Your task to perform on an android device: read, delete, or share a saved page in the chrome app Image 0: 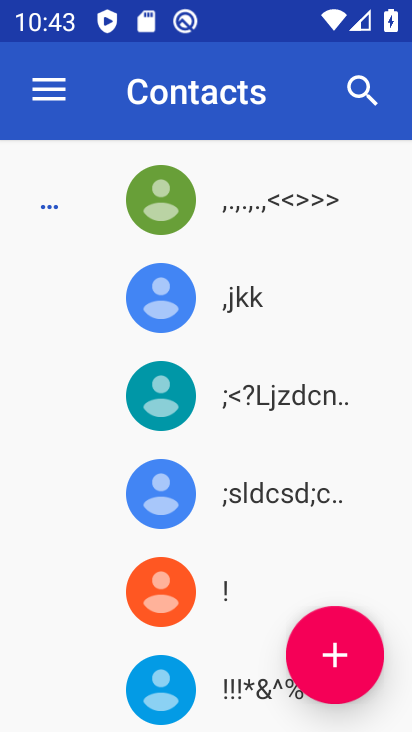
Step 0: press home button
Your task to perform on an android device: read, delete, or share a saved page in the chrome app Image 1: 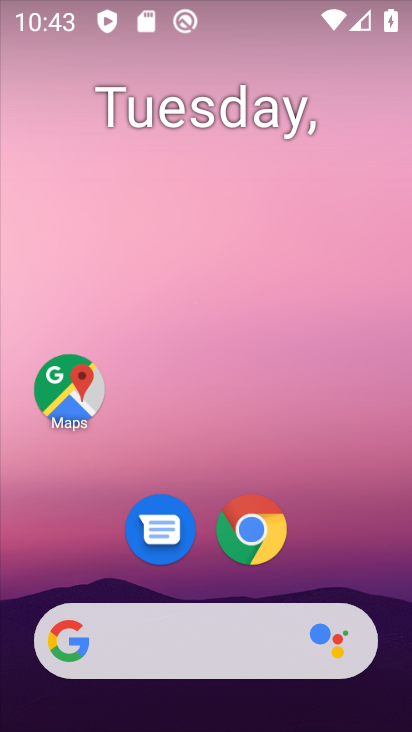
Step 1: click (255, 534)
Your task to perform on an android device: read, delete, or share a saved page in the chrome app Image 2: 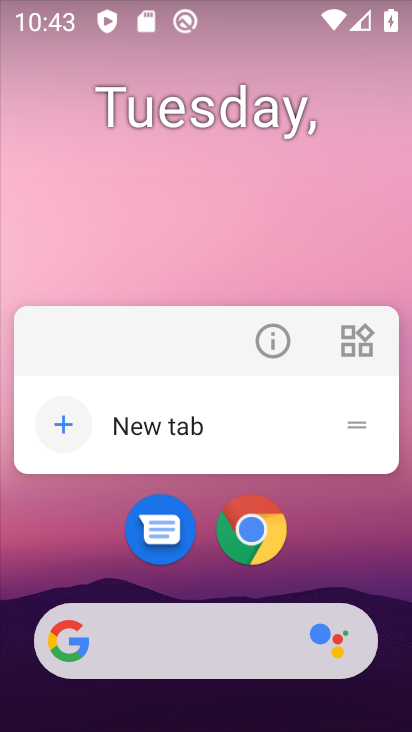
Step 2: click (253, 540)
Your task to perform on an android device: read, delete, or share a saved page in the chrome app Image 3: 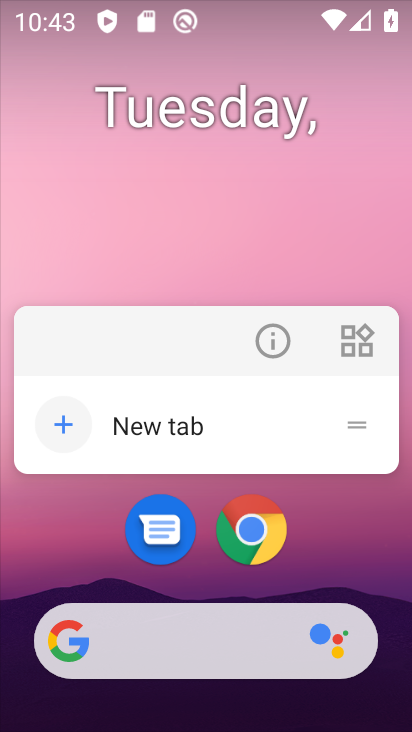
Step 3: click (255, 553)
Your task to perform on an android device: read, delete, or share a saved page in the chrome app Image 4: 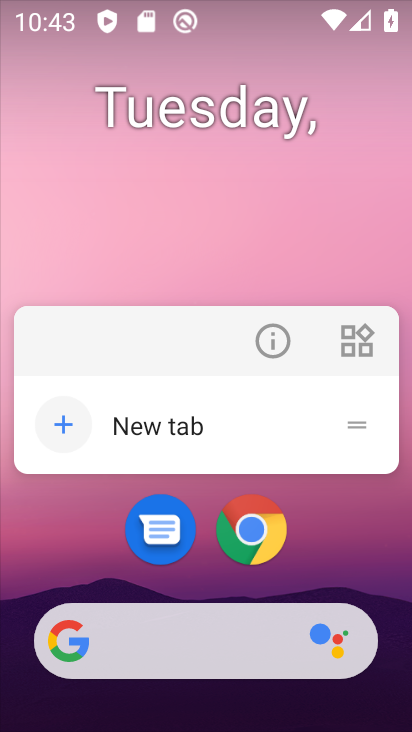
Step 4: click (256, 546)
Your task to perform on an android device: read, delete, or share a saved page in the chrome app Image 5: 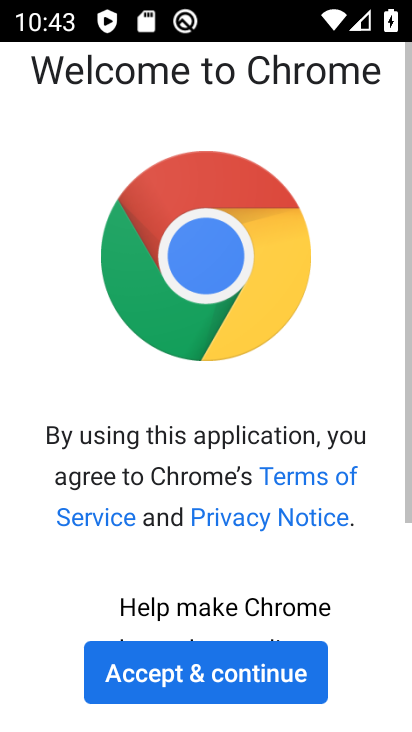
Step 5: click (240, 679)
Your task to perform on an android device: read, delete, or share a saved page in the chrome app Image 6: 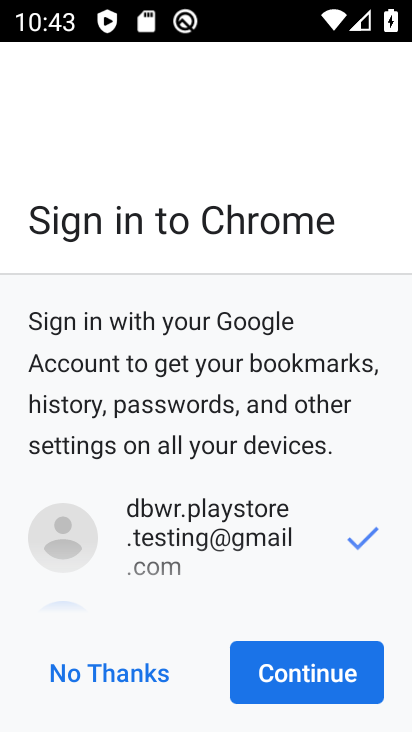
Step 6: click (291, 667)
Your task to perform on an android device: read, delete, or share a saved page in the chrome app Image 7: 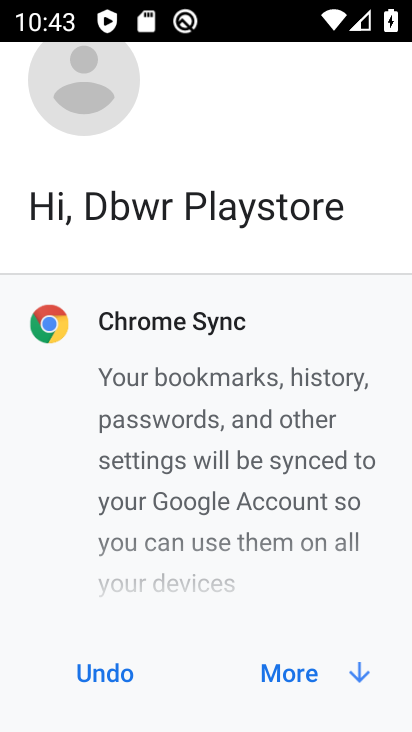
Step 7: click (311, 675)
Your task to perform on an android device: read, delete, or share a saved page in the chrome app Image 8: 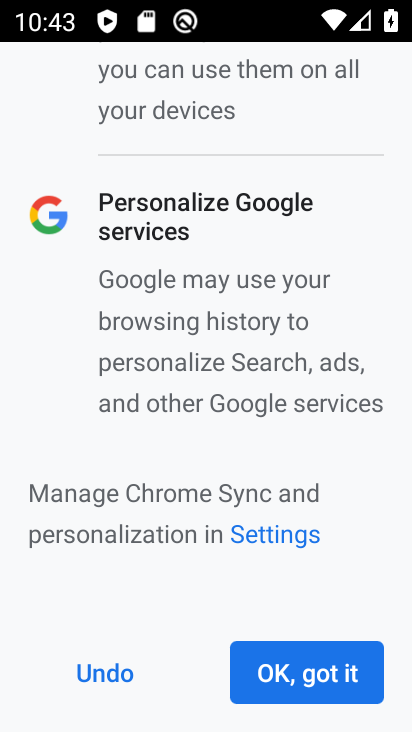
Step 8: click (311, 675)
Your task to perform on an android device: read, delete, or share a saved page in the chrome app Image 9: 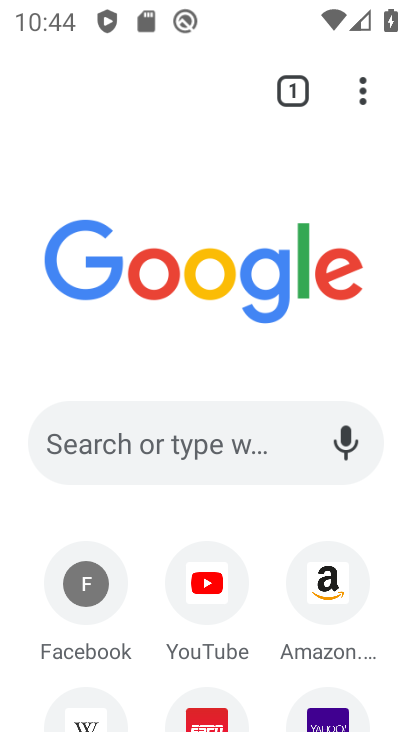
Step 9: drag from (361, 93) to (221, 475)
Your task to perform on an android device: read, delete, or share a saved page in the chrome app Image 10: 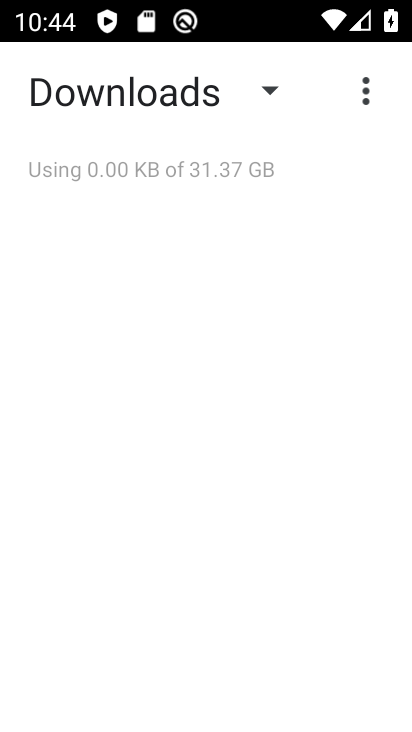
Step 10: click (197, 90)
Your task to perform on an android device: read, delete, or share a saved page in the chrome app Image 11: 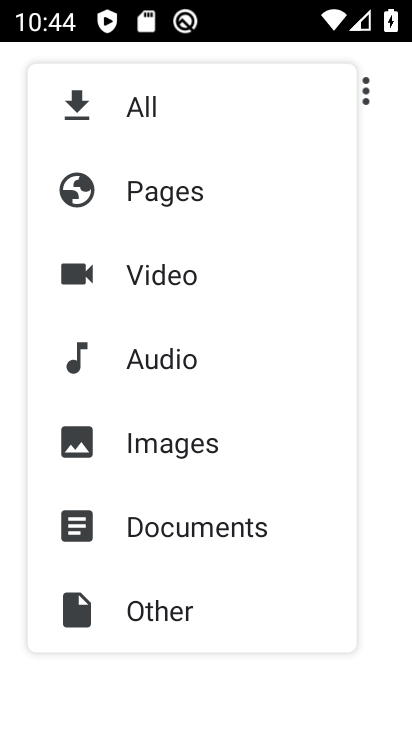
Step 11: click (191, 190)
Your task to perform on an android device: read, delete, or share a saved page in the chrome app Image 12: 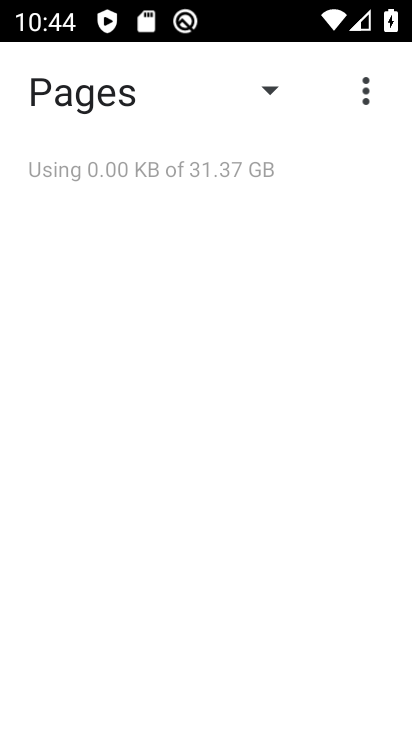
Step 12: task complete